Your task to perform on an android device: open device folders in google photos Image 0: 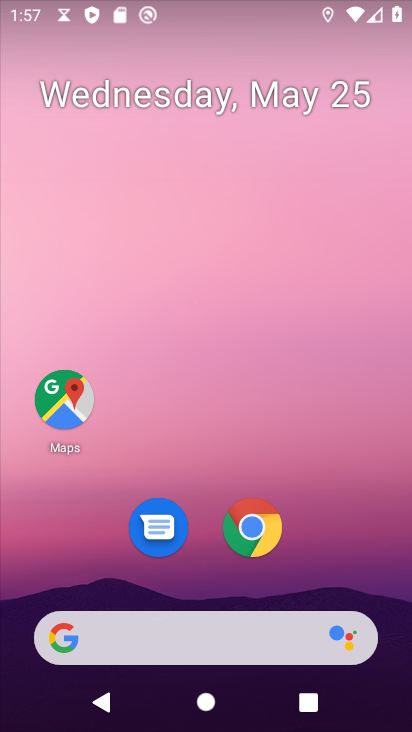
Step 0: drag from (62, 614) to (192, 71)
Your task to perform on an android device: open device folders in google photos Image 1: 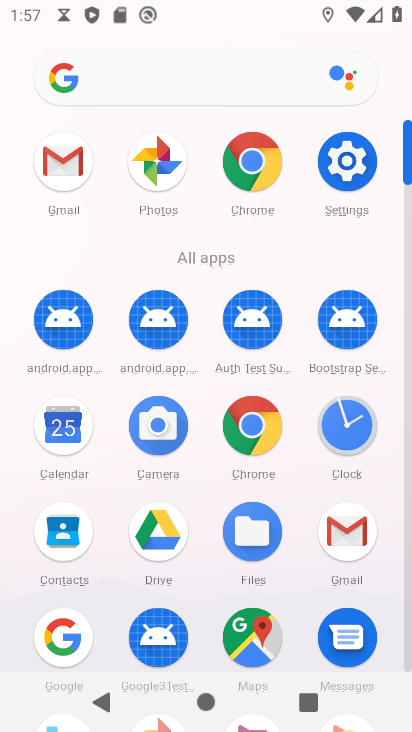
Step 1: drag from (141, 612) to (198, 402)
Your task to perform on an android device: open device folders in google photos Image 2: 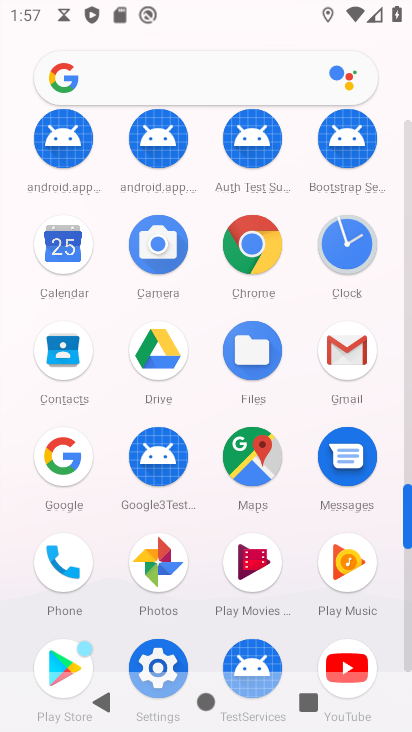
Step 2: click (126, 555)
Your task to perform on an android device: open device folders in google photos Image 3: 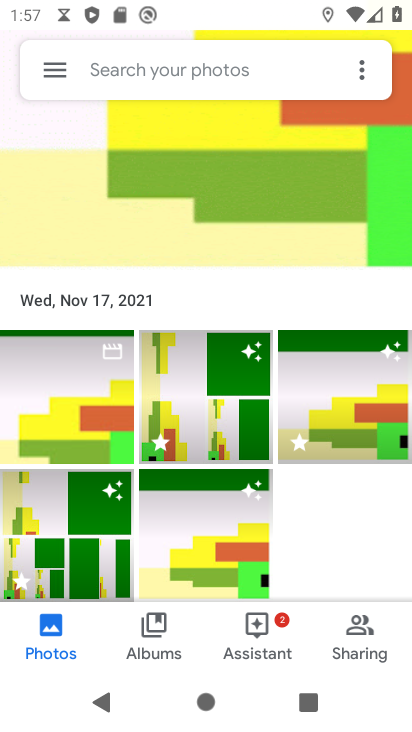
Step 3: click (44, 69)
Your task to perform on an android device: open device folders in google photos Image 4: 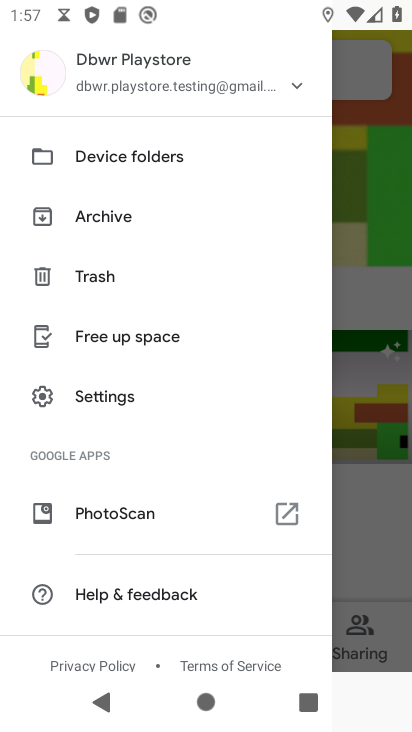
Step 4: click (186, 170)
Your task to perform on an android device: open device folders in google photos Image 5: 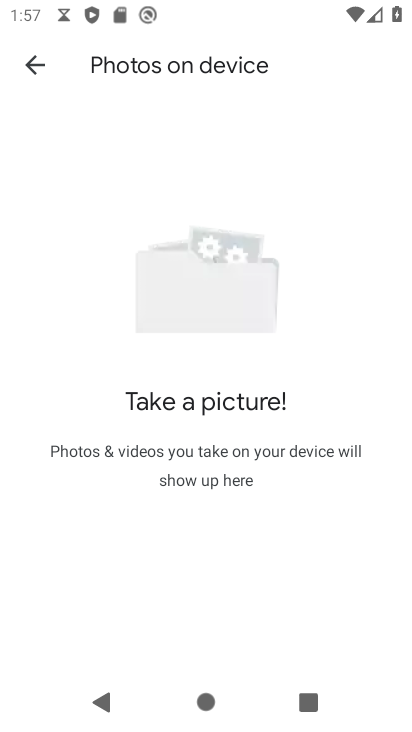
Step 5: task complete